Your task to perform on an android device: Search for Mexican restaurants on Maps Image 0: 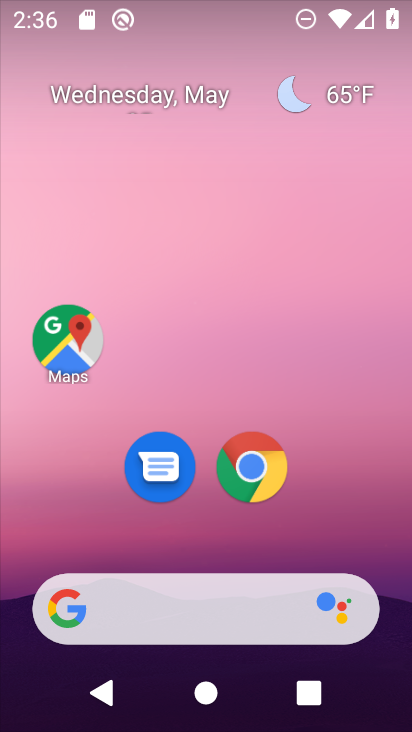
Step 0: click (66, 351)
Your task to perform on an android device: Search for Mexican restaurants on Maps Image 1: 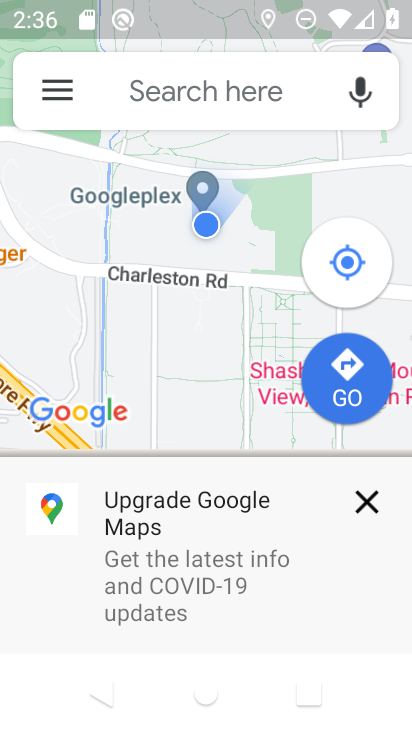
Step 1: click (255, 82)
Your task to perform on an android device: Search for Mexican restaurants on Maps Image 2: 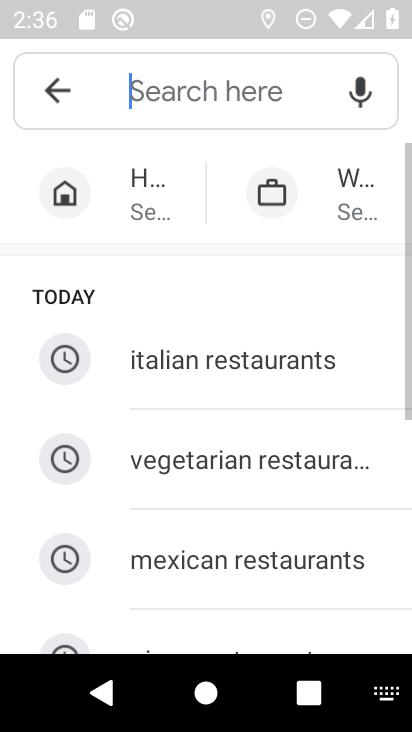
Step 2: click (294, 571)
Your task to perform on an android device: Search for Mexican restaurants on Maps Image 3: 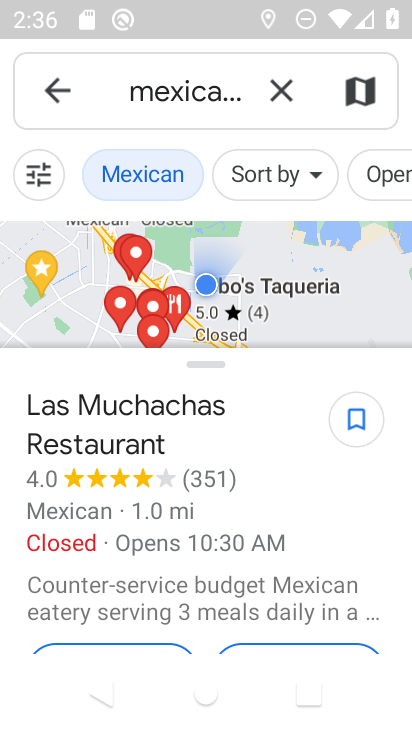
Step 3: task complete